Your task to perform on an android device: turn on javascript in the chrome app Image 0: 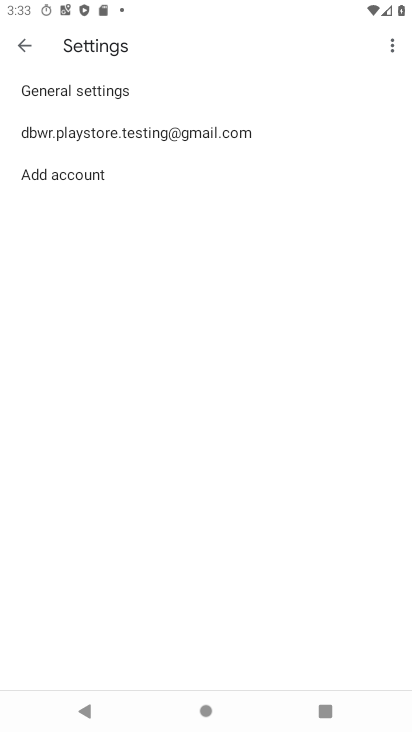
Step 0: press home button
Your task to perform on an android device: turn on javascript in the chrome app Image 1: 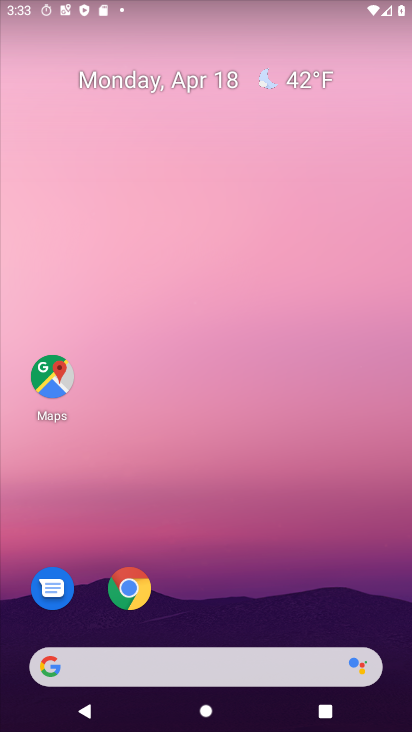
Step 1: click (124, 584)
Your task to perform on an android device: turn on javascript in the chrome app Image 2: 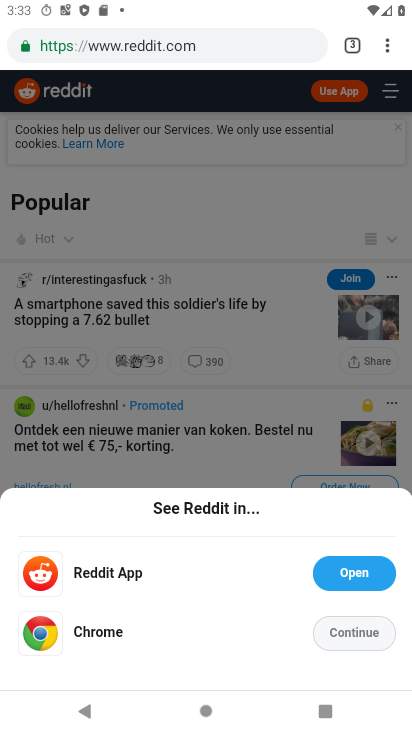
Step 2: click (394, 48)
Your task to perform on an android device: turn on javascript in the chrome app Image 3: 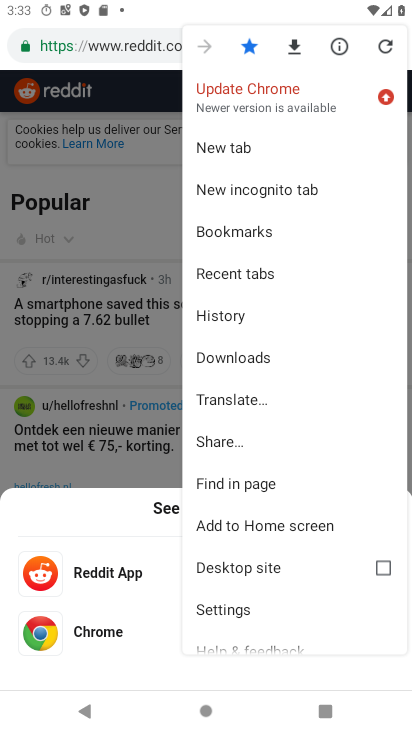
Step 3: click (228, 610)
Your task to perform on an android device: turn on javascript in the chrome app Image 4: 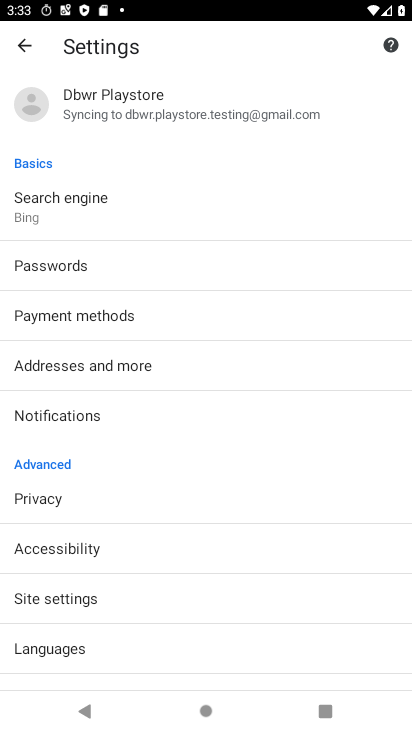
Step 4: drag from (226, 524) to (190, 266)
Your task to perform on an android device: turn on javascript in the chrome app Image 5: 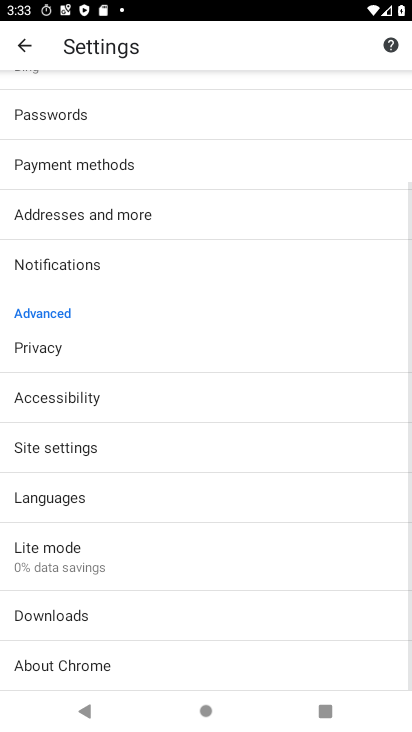
Step 5: click (84, 454)
Your task to perform on an android device: turn on javascript in the chrome app Image 6: 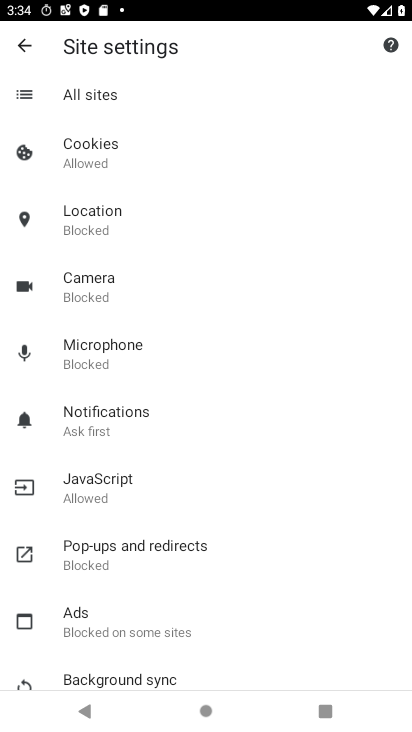
Step 6: click (153, 493)
Your task to perform on an android device: turn on javascript in the chrome app Image 7: 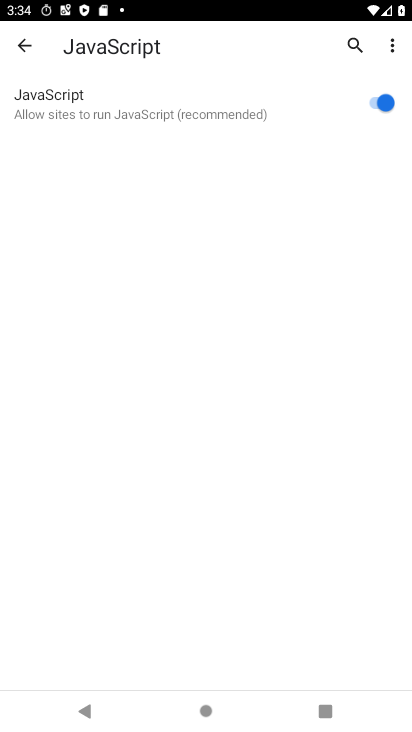
Step 7: task complete